Your task to perform on an android device: set the stopwatch Image 0: 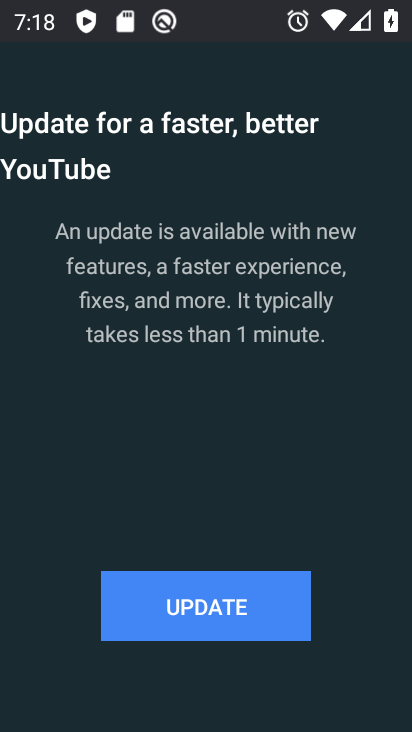
Step 0: press home button
Your task to perform on an android device: set the stopwatch Image 1: 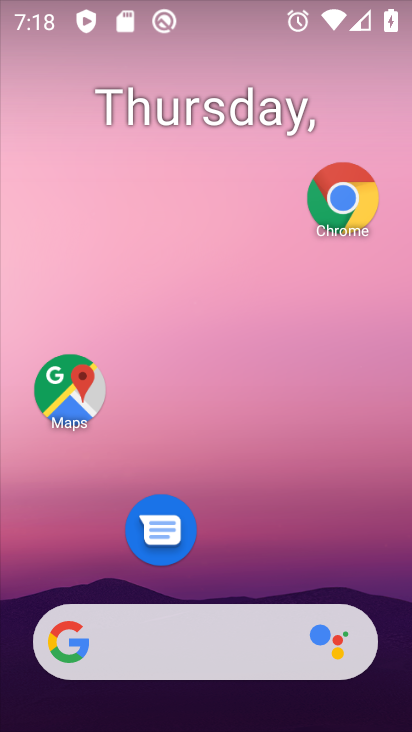
Step 1: drag from (286, 710) to (175, 239)
Your task to perform on an android device: set the stopwatch Image 2: 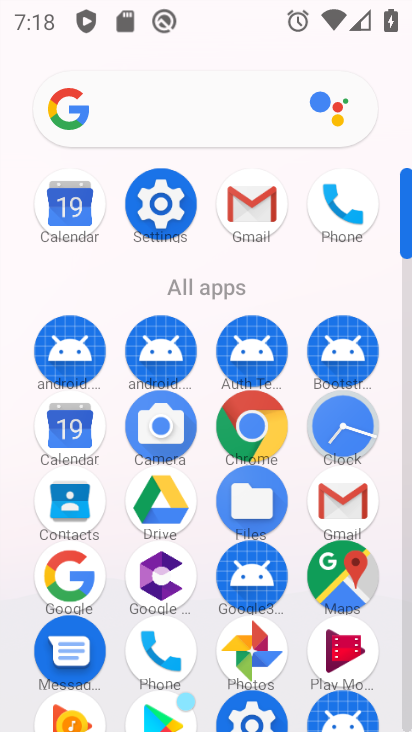
Step 2: click (324, 435)
Your task to perform on an android device: set the stopwatch Image 3: 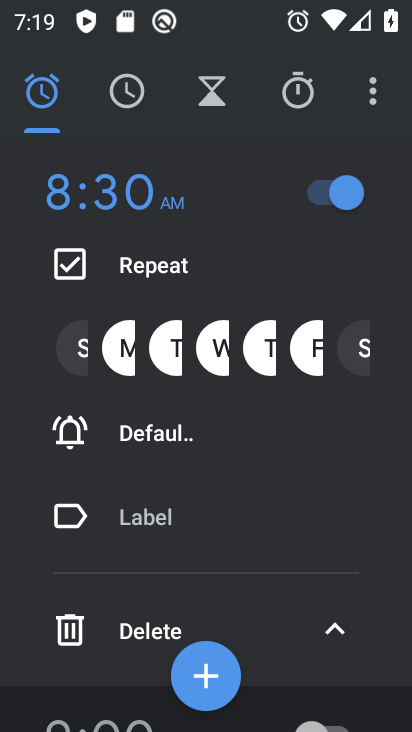
Step 3: click (298, 94)
Your task to perform on an android device: set the stopwatch Image 4: 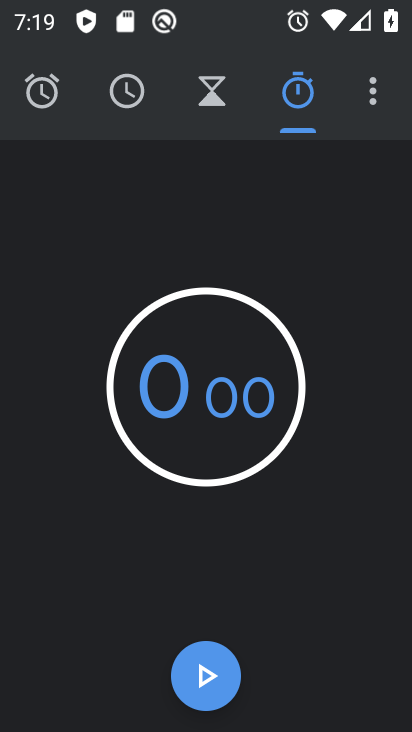
Step 4: click (199, 675)
Your task to perform on an android device: set the stopwatch Image 5: 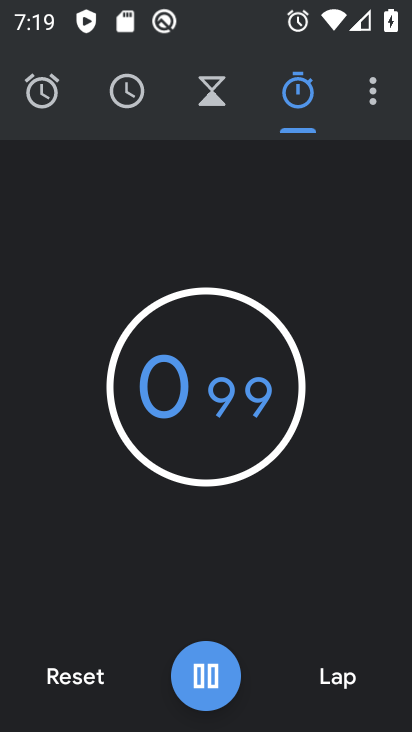
Step 5: click (204, 678)
Your task to perform on an android device: set the stopwatch Image 6: 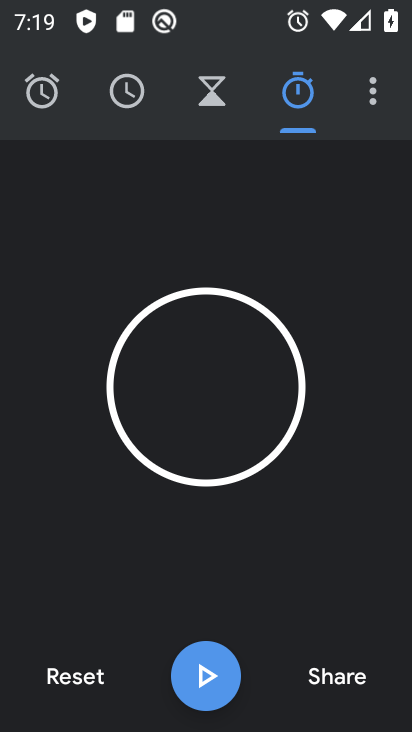
Step 6: task complete